Your task to perform on an android device: turn on javascript in the chrome app Image 0: 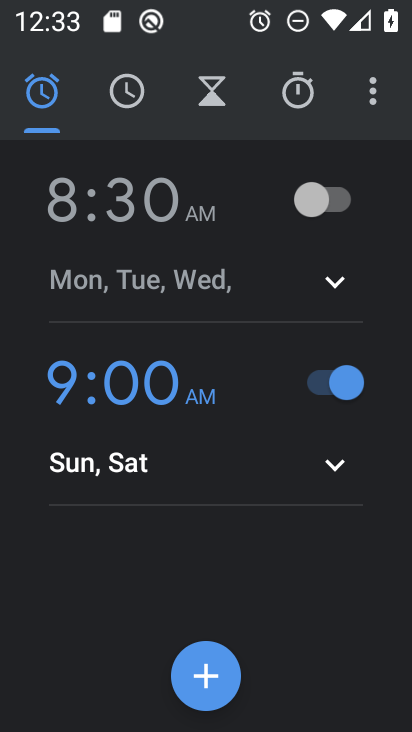
Step 0: press home button
Your task to perform on an android device: turn on javascript in the chrome app Image 1: 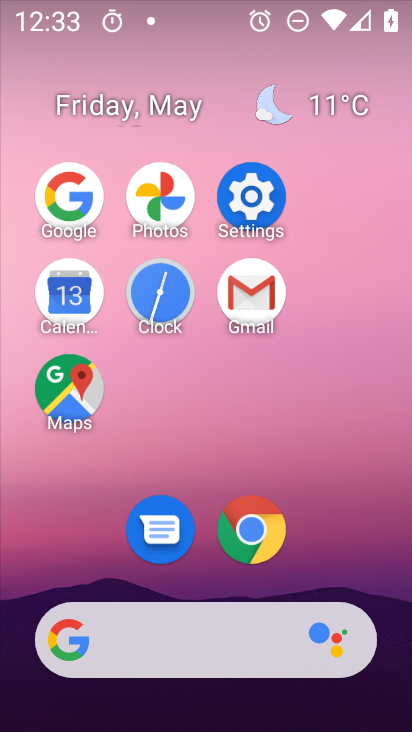
Step 1: click (276, 531)
Your task to perform on an android device: turn on javascript in the chrome app Image 2: 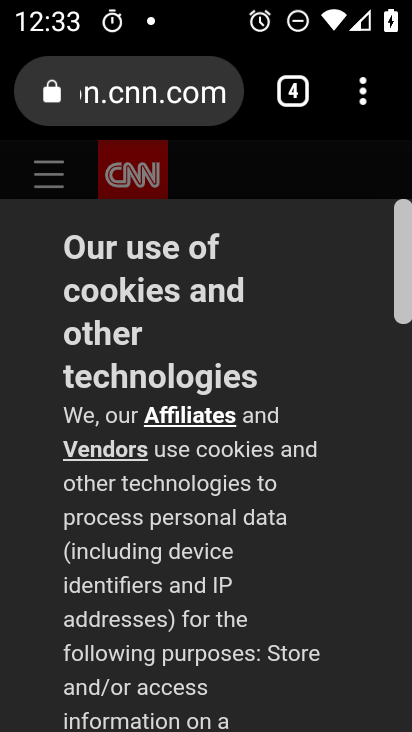
Step 2: click (365, 101)
Your task to perform on an android device: turn on javascript in the chrome app Image 3: 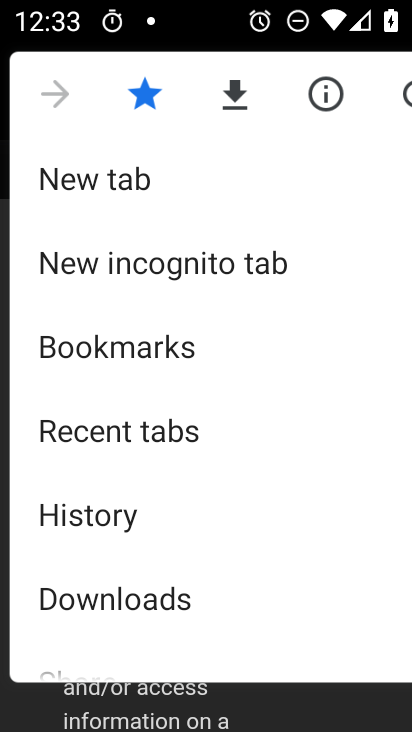
Step 3: drag from (259, 505) to (287, 176)
Your task to perform on an android device: turn on javascript in the chrome app Image 4: 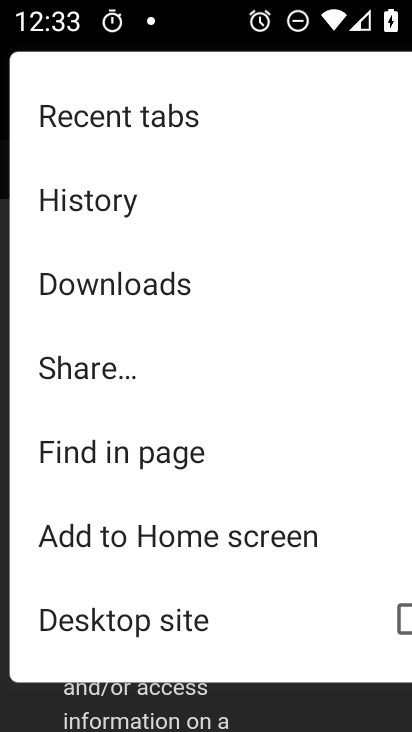
Step 4: drag from (193, 561) to (258, 246)
Your task to perform on an android device: turn on javascript in the chrome app Image 5: 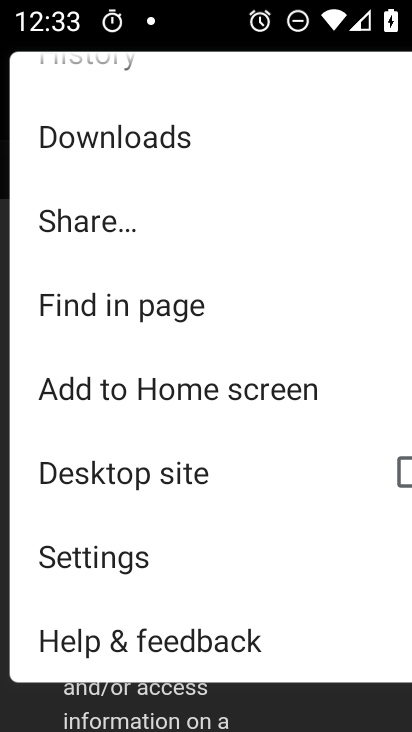
Step 5: click (161, 532)
Your task to perform on an android device: turn on javascript in the chrome app Image 6: 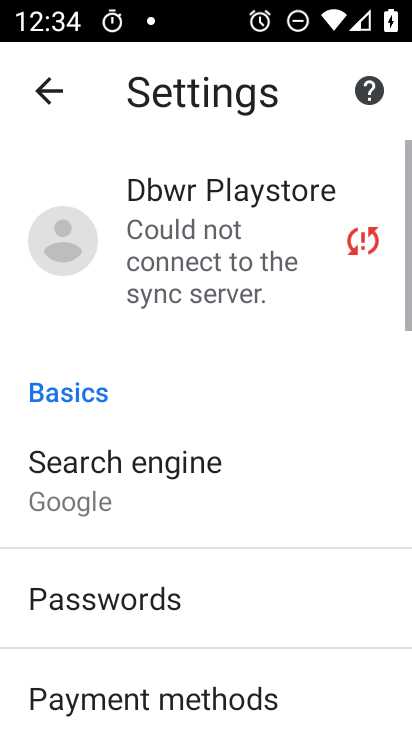
Step 6: drag from (160, 532) to (222, 175)
Your task to perform on an android device: turn on javascript in the chrome app Image 7: 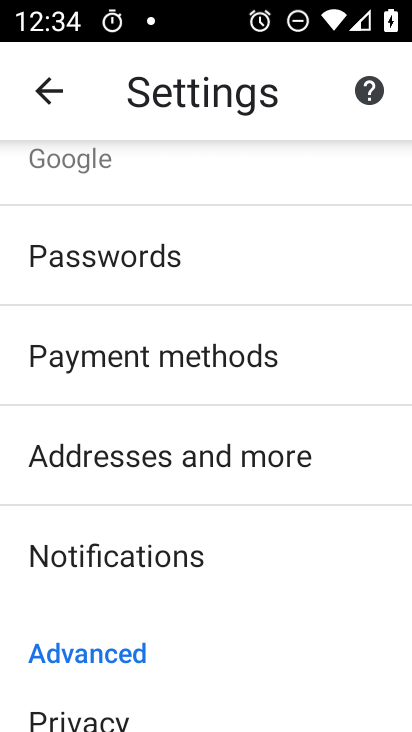
Step 7: drag from (200, 581) to (268, 269)
Your task to perform on an android device: turn on javascript in the chrome app Image 8: 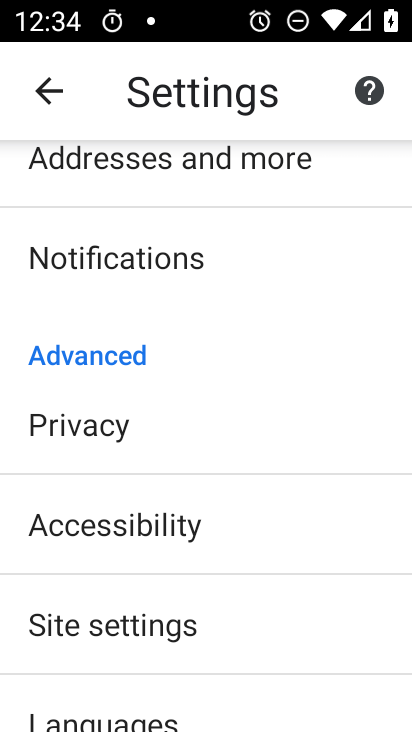
Step 8: click (268, 596)
Your task to perform on an android device: turn on javascript in the chrome app Image 9: 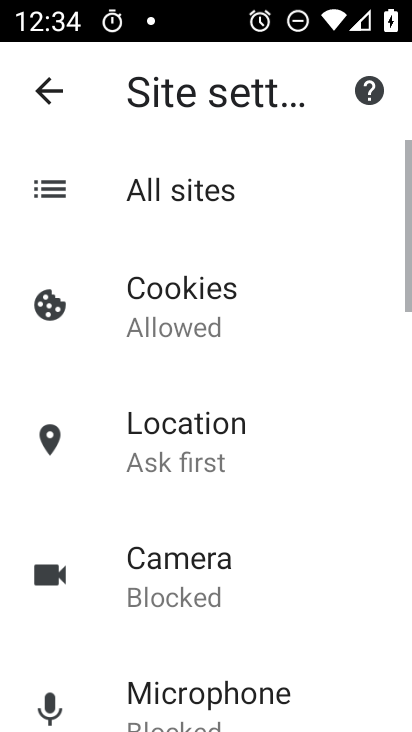
Step 9: drag from (268, 596) to (308, 243)
Your task to perform on an android device: turn on javascript in the chrome app Image 10: 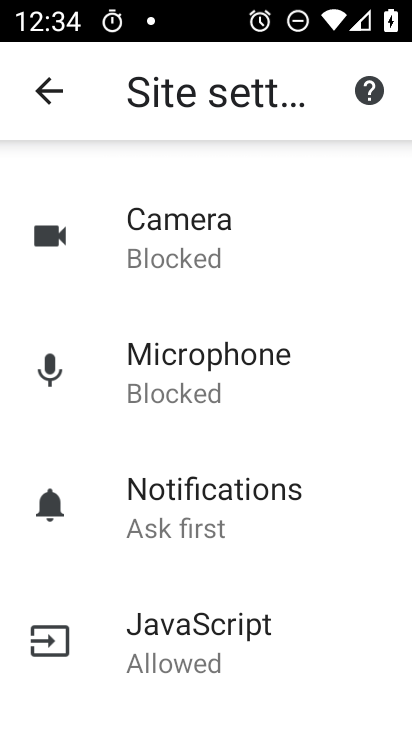
Step 10: click (255, 611)
Your task to perform on an android device: turn on javascript in the chrome app Image 11: 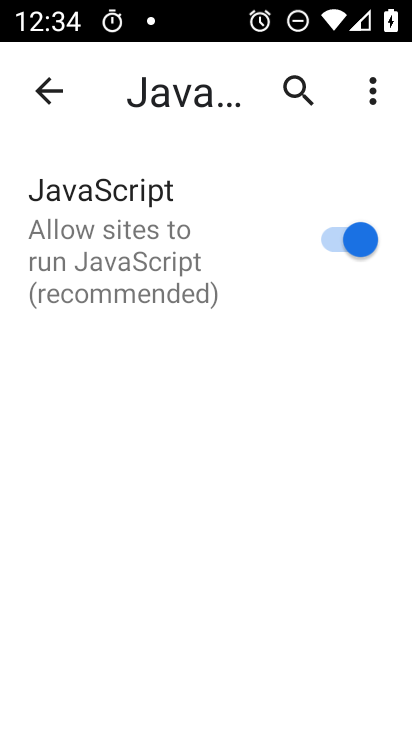
Step 11: task complete